Your task to perform on an android device: Go to Google Image 0: 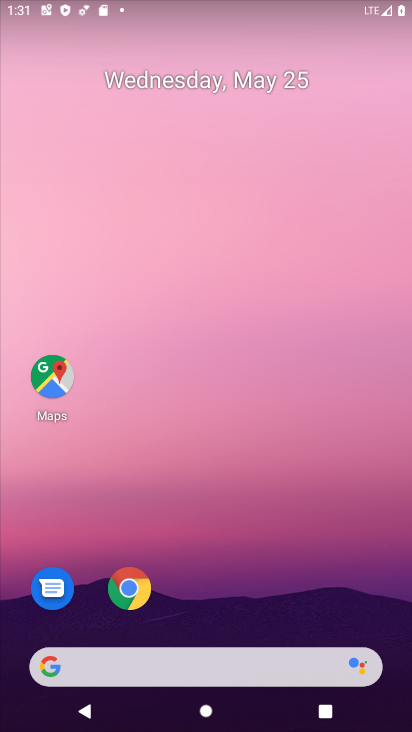
Step 0: drag from (257, 621) to (319, 9)
Your task to perform on an android device: Go to Google Image 1: 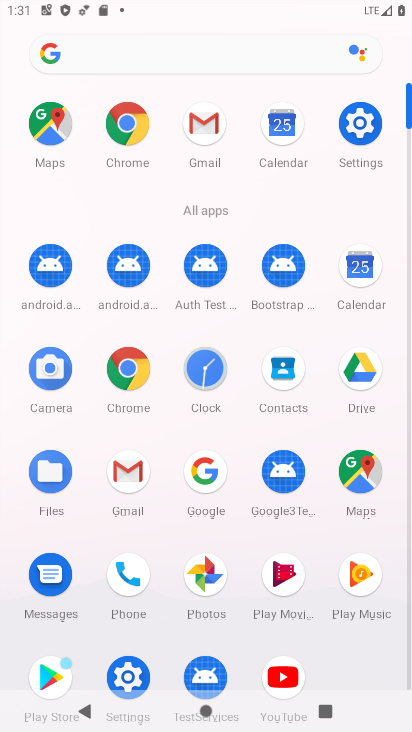
Step 1: click (195, 476)
Your task to perform on an android device: Go to Google Image 2: 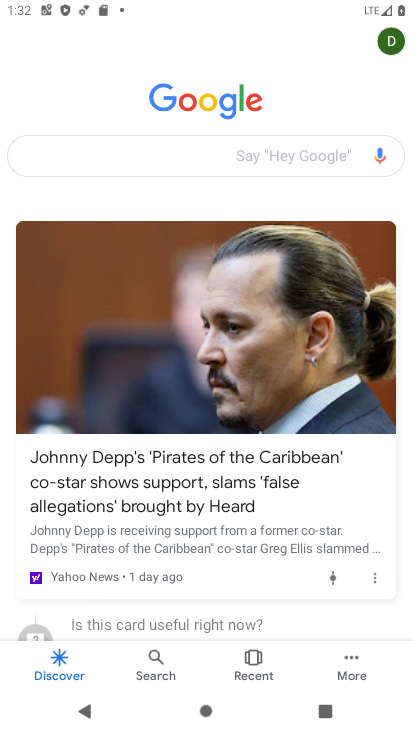
Step 2: task complete